Your task to perform on an android device: Open eBay Image 0: 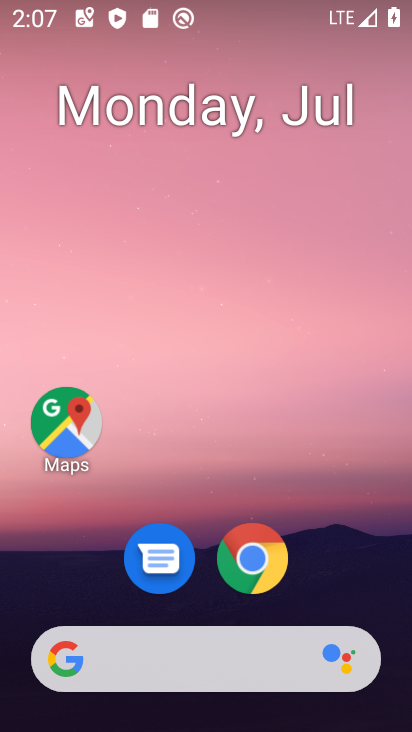
Step 0: drag from (331, 580) to (352, 116)
Your task to perform on an android device: Open eBay Image 1: 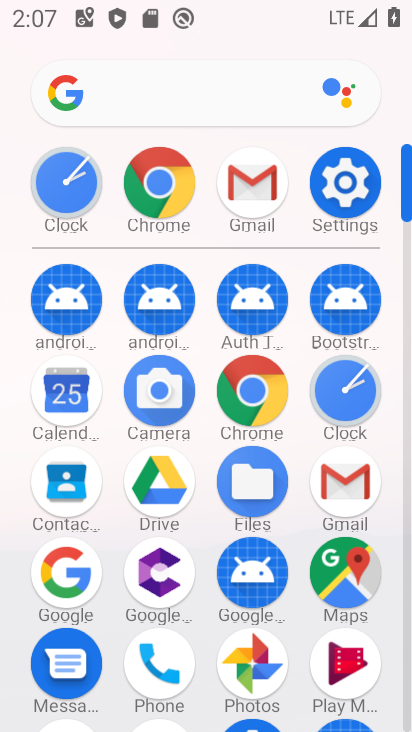
Step 1: click (252, 376)
Your task to perform on an android device: Open eBay Image 2: 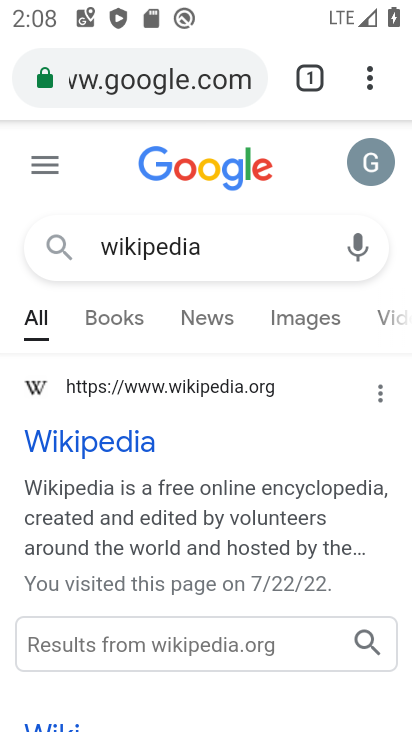
Step 2: click (202, 70)
Your task to perform on an android device: Open eBay Image 3: 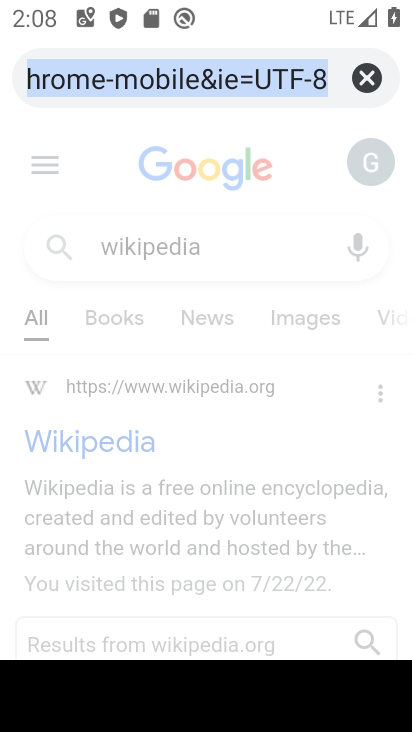
Step 3: type "ebay"
Your task to perform on an android device: Open eBay Image 4: 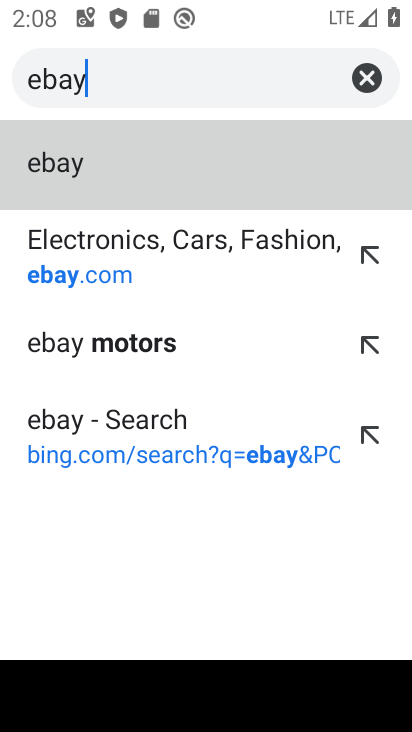
Step 4: click (83, 160)
Your task to perform on an android device: Open eBay Image 5: 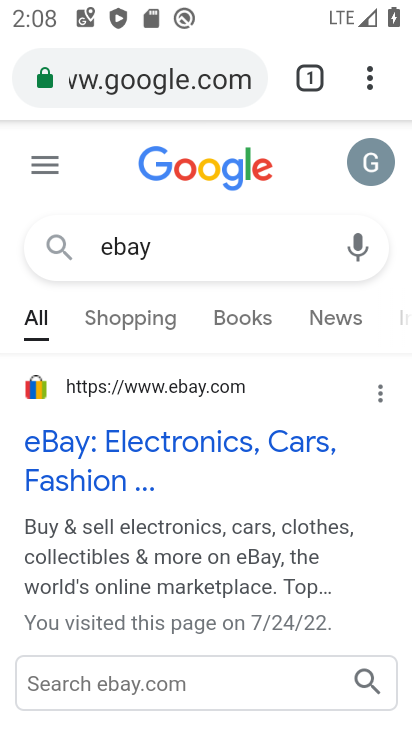
Step 5: task complete